Your task to perform on an android device: Show me popular videos on Youtube Image 0: 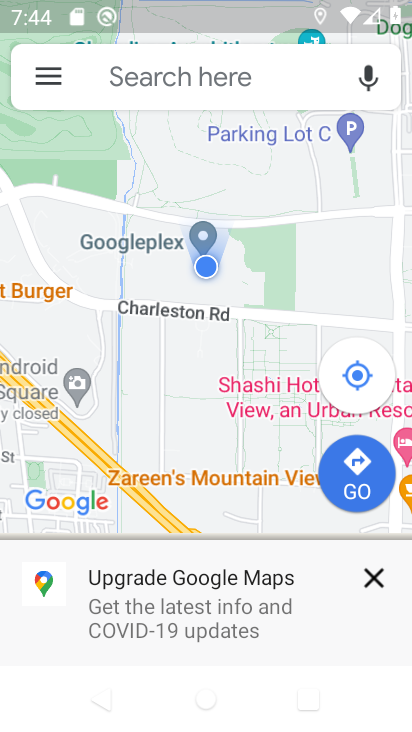
Step 0: press home button
Your task to perform on an android device: Show me popular videos on Youtube Image 1: 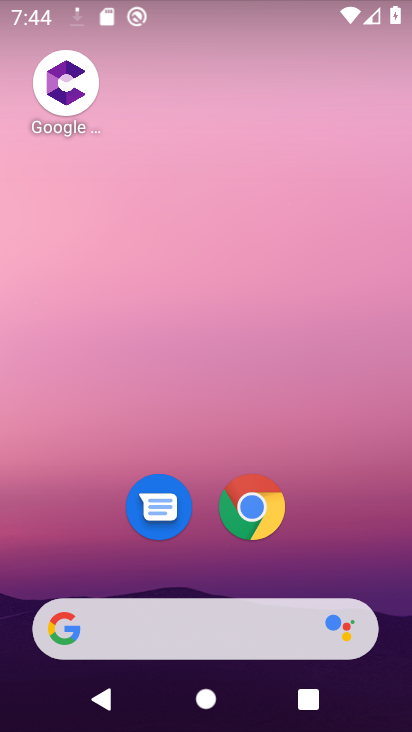
Step 1: drag from (396, 614) to (339, 93)
Your task to perform on an android device: Show me popular videos on Youtube Image 2: 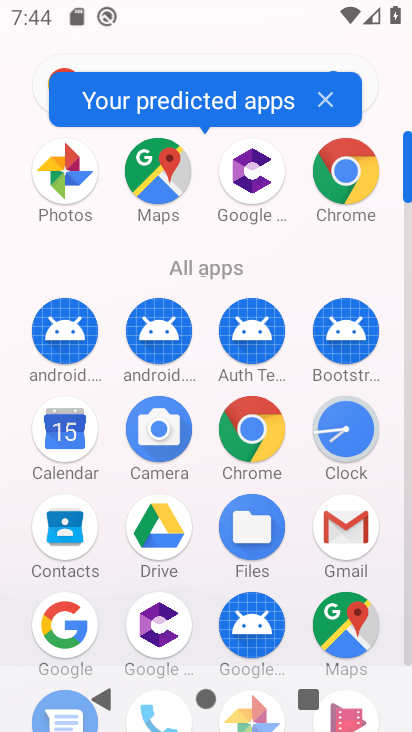
Step 2: click (410, 655)
Your task to perform on an android device: Show me popular videos on Youtube Image 3: 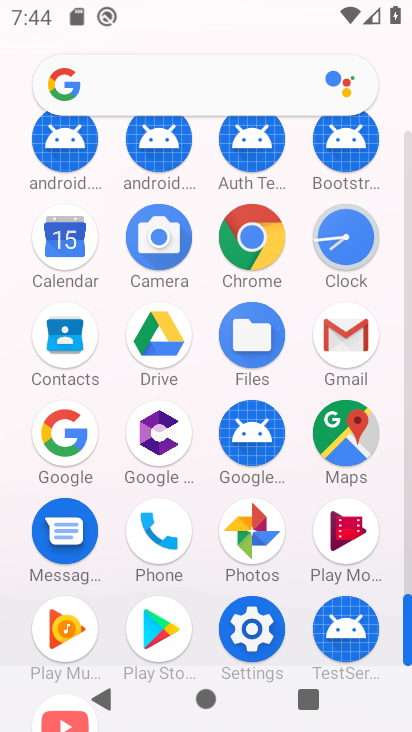
Step 3: click (404, 571)
Your task to perform on an android device: Show me popular videos on Youtube Image 4: 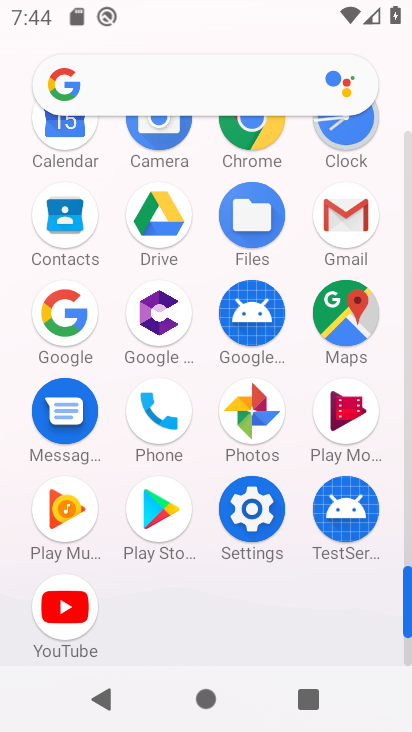
Step 4: click (65, 607)
Your task to perform on an android device: Show me popular videos on Youtube Image 5: 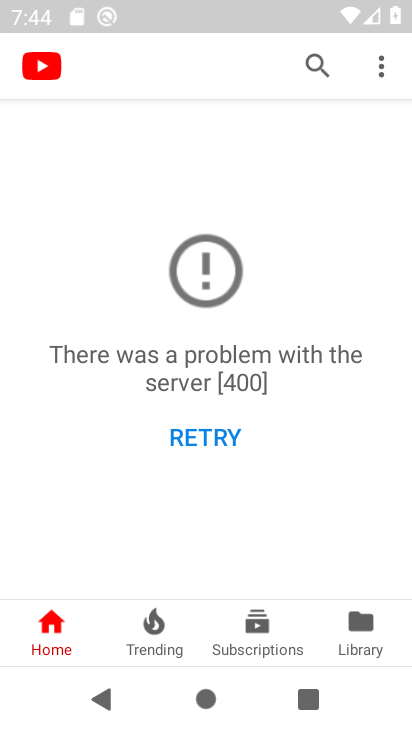
Step 5: click (381, 74)
Your task to perform on an android device: Show me popular videos on Youtube Image 6: 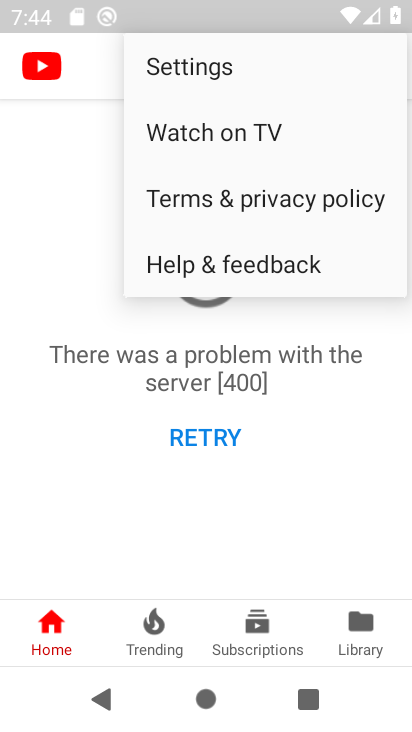
Step 6: click (213, 435)
Your task to perform on an android device: Show me popular videos on Youtube Image 7: 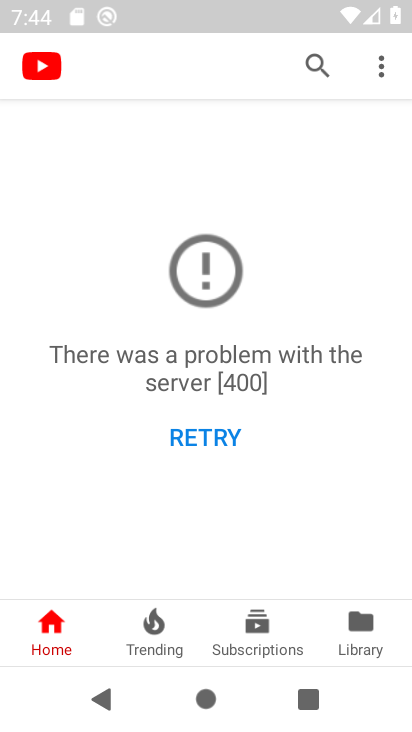
Step 7: click (213, 435)
Your task to perform on an android device: Show me popular videos on Youtube Image 8: 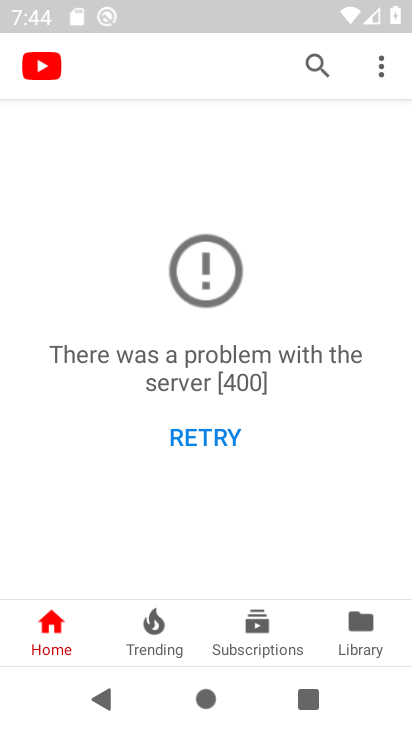
Step 8: click (161, 629)
Your task to perform on an android device: Show me popular videos on Youtube Image 9: 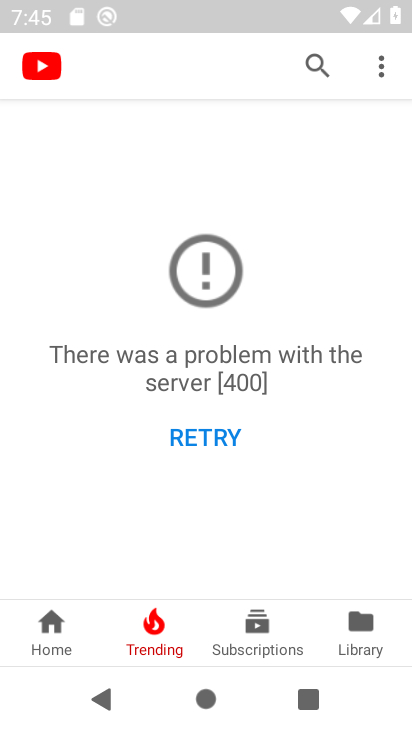
Step 9: task complete